Your task to perform on an android device: Show me recent news Image 0: 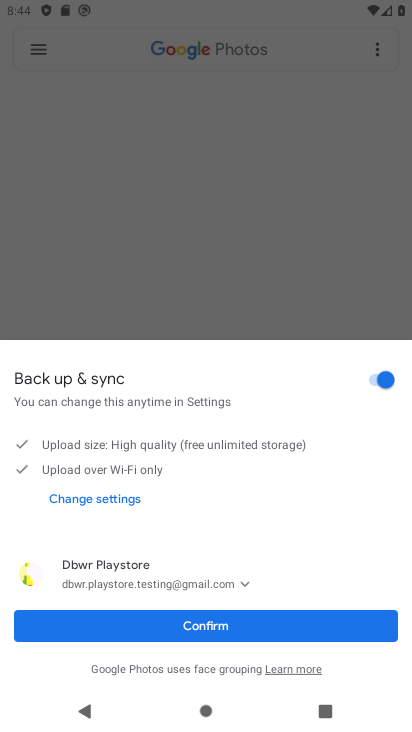
Step 0: press home button
Your task to perform on an android device: Show me recent news Image 1: 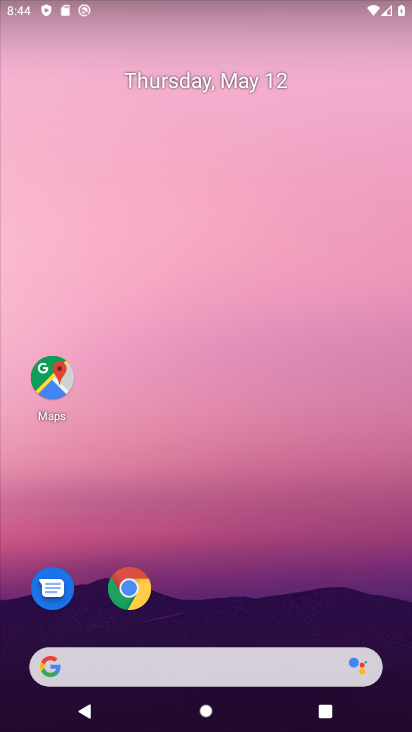
Step 1: task complete